Your task to perform on an android device: Search for Italian restaurants on Maps Image 0: 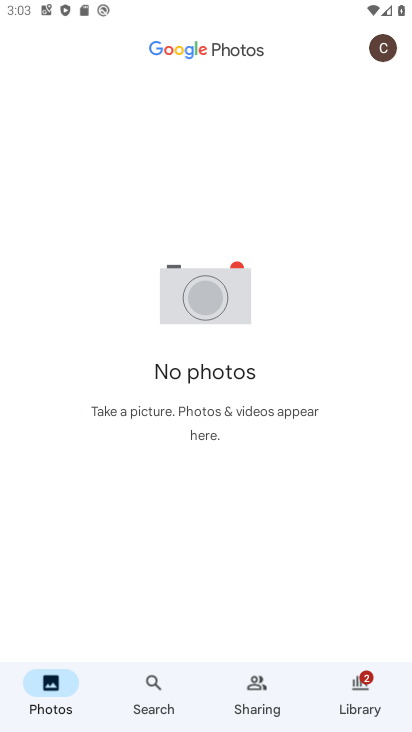
Step 0: press home button
Your task to perform on an android device: Search for Italian restaurants on Maps Image 1: 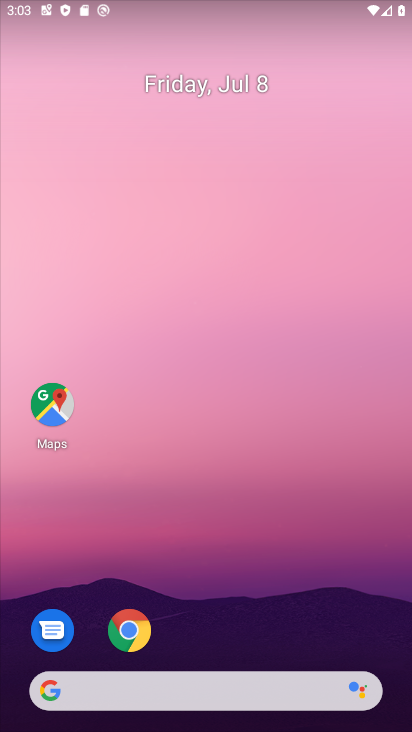
Step 1: click (54, 415)
Your task to perform on an android device: Search for Italian restaurants on Maps Image 2: 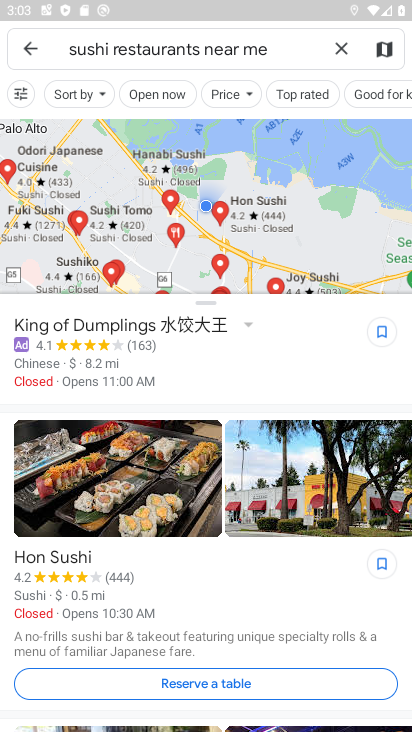
Step 2: click (337, 57)
Your task to perform on an android device: Search for Italian restaurants on Maps Image 3: 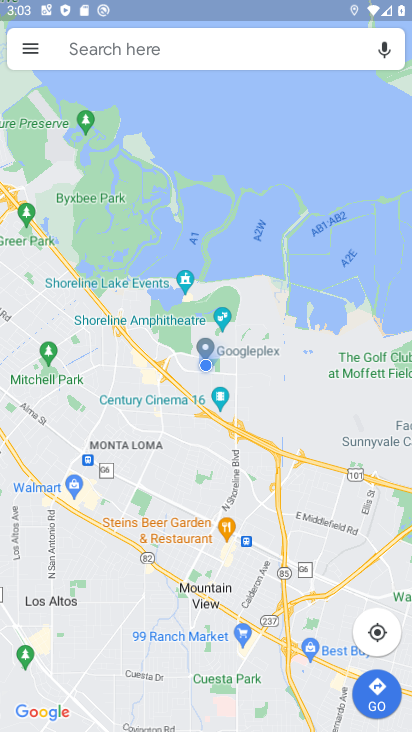
Step 3: click (281, 57)
Your task to perform on an android device: Search for Italian restaurants on Maps Image 4: 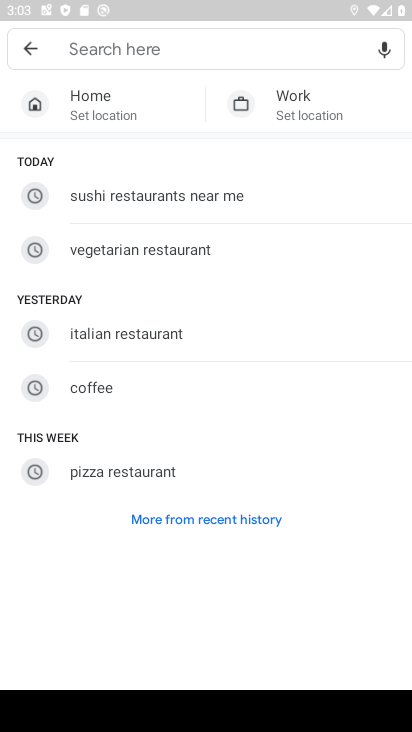
Step 4: click (240, 339)
Your task to perform on an android device: Search for Italian restaurants on Maps Image 5: 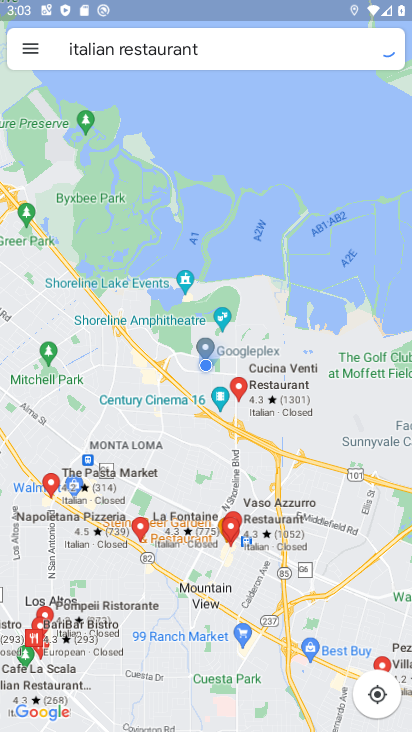
Step 5: task complete